Your task to perform on an android device: Go to ESPN.com Image 0: 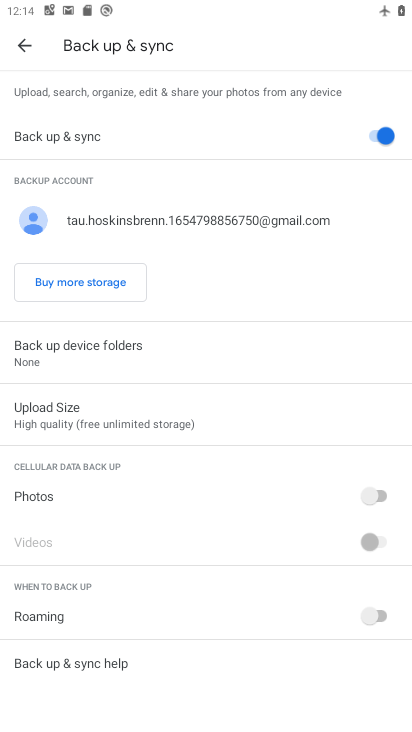
Step 0: press home button
Your task to perform on an android device: Go to ESPN.com Image 1: 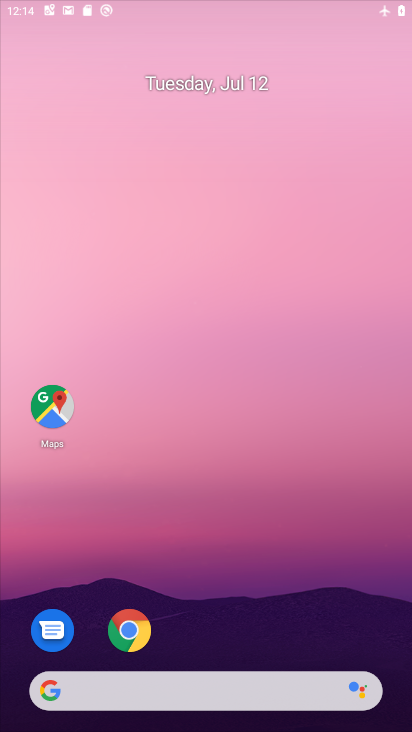
Step 1: drag from (198, 599) to (335, 17)
Your task to perform on an android device: Go to ESPN.com Image 2: 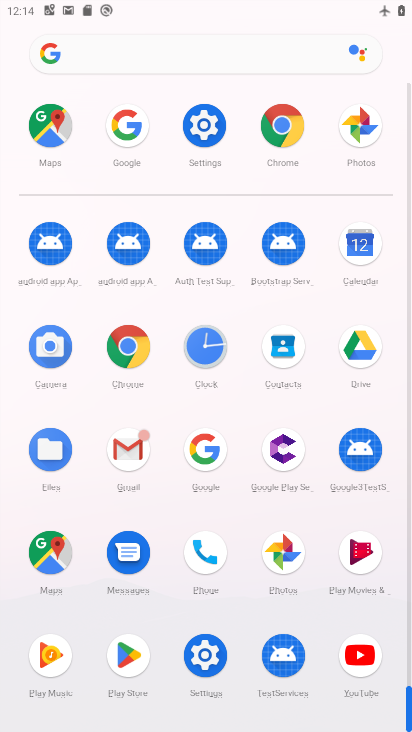
Step 2: click (284, 141)
Your task to perform on an android device: Go to ESPN.com Image 3: 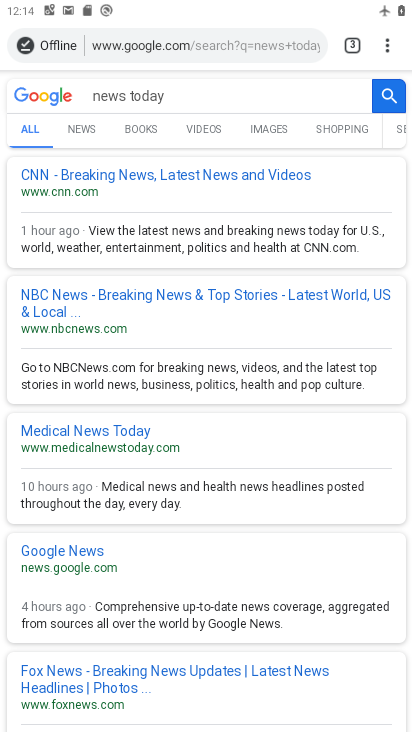
Step 3: click (196, 49)
Your task to perform on an android device: Go to ESPN.com Image 4: 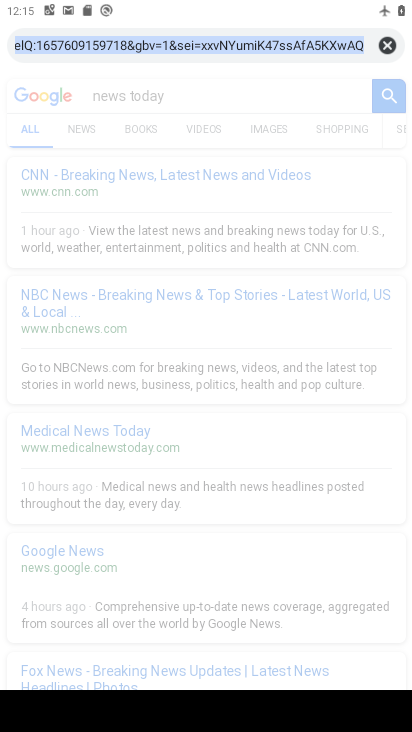
Step 4: type "espn.com"
Your task to perform on an android device: Go to ESPN.com Image 5: 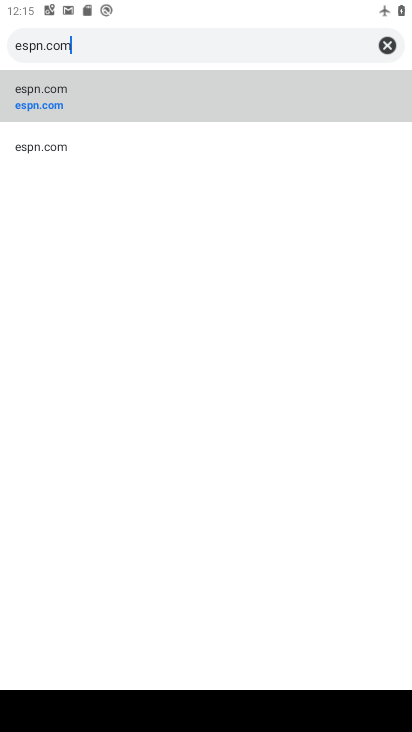
Step 5: task complete